Your task to perform on an android device: Open battery settings Image 0: 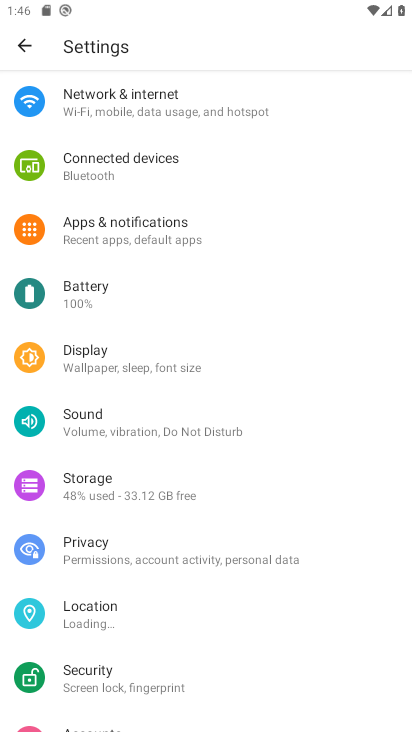
Step 0: press home button
Your task to perform on an android device: Open battery settings Image 1: 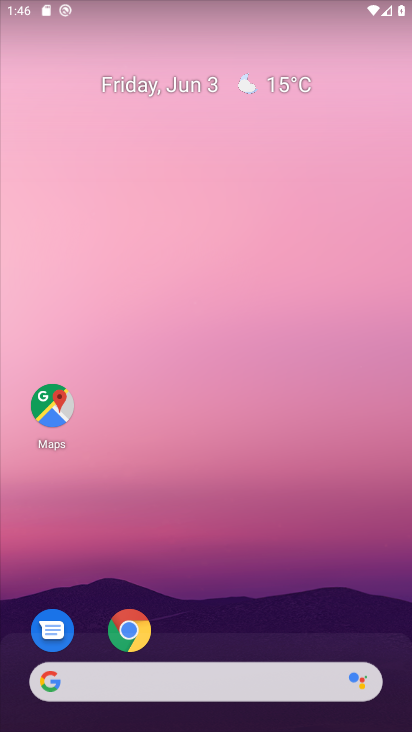
Step 1: drag from (230, 598) to (299, 108)
Your task to perform on an android device: Open battery settings Image 2: 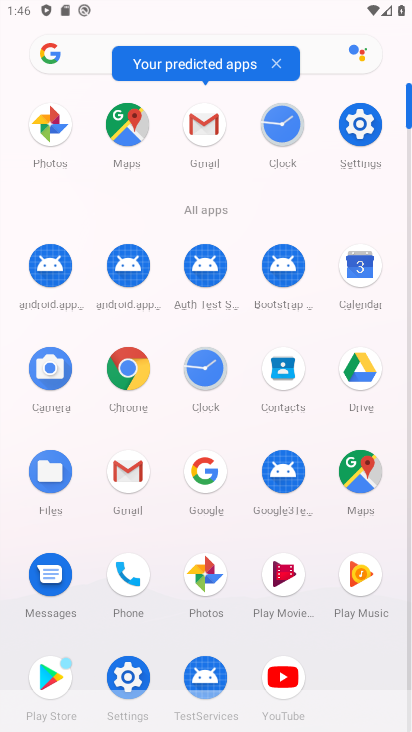
Step 2: click (354, 117)
Your task to perform on an android device: Open battery settings Image 3: 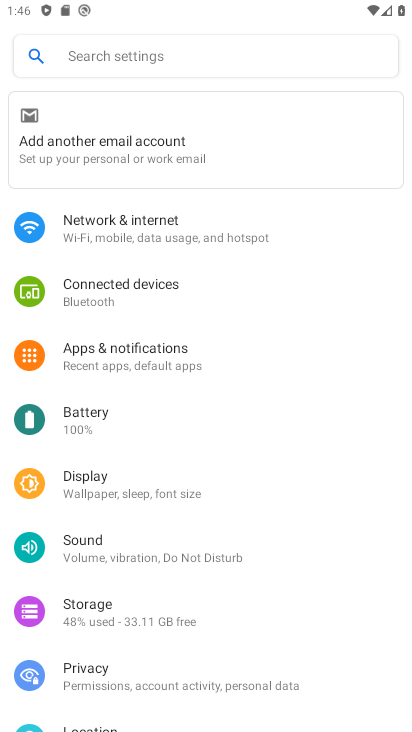
Step 3: click (36, 414)
Your task to perform on an android device: Open battery settings Image 4: 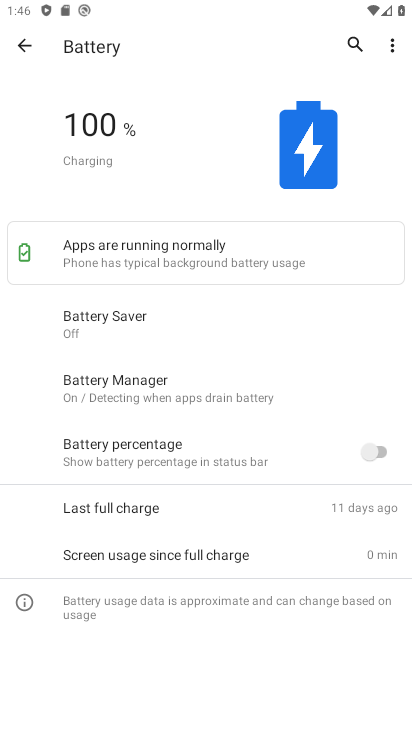
Step 4: task complete